Your task to perform on an android device: check data usage Image 0: 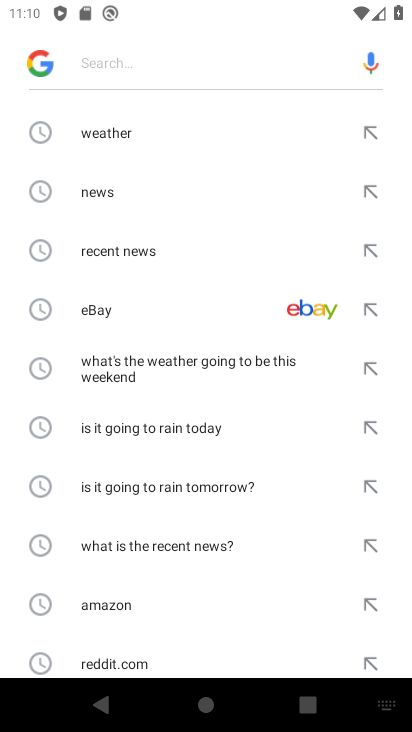
Step 0: press home button
Your task to perform on an android device: check data usage Image 1: 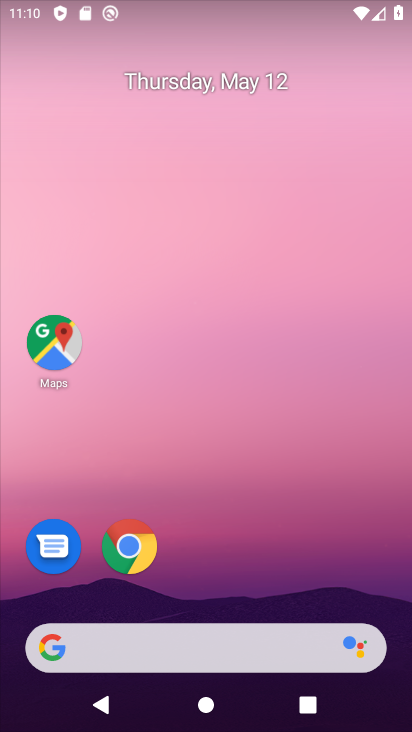
Step 1: drag from (222, 727) to (236, 241)
Your task to perform on an android device: check data usage Image 2: 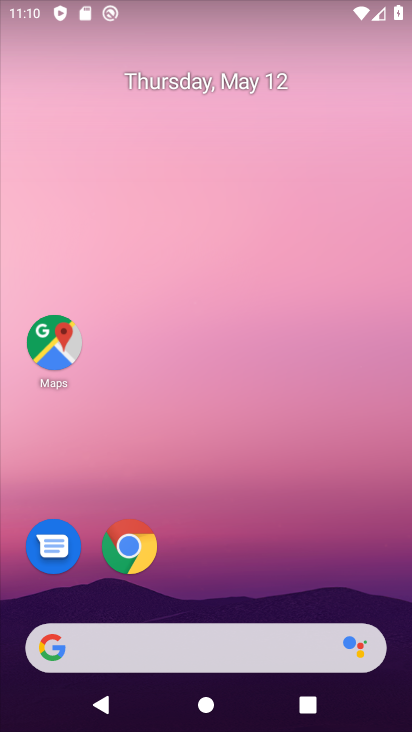
Step 2: drag from (221, 725) to (228, 110)
Your task to perform on an android device: check data usage Image 3: 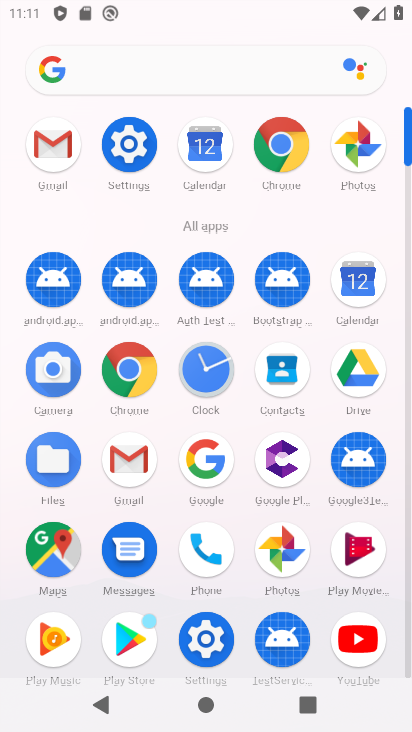
Step 3: click (131, 147)
Your task to perform on an android device: check data usage Image 4: 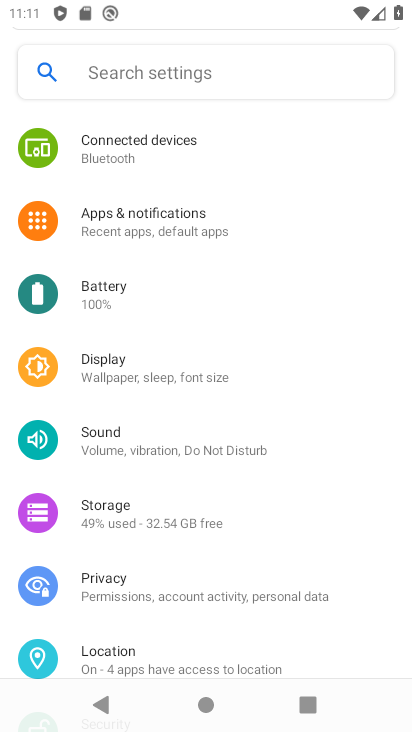
Step 4: drag from (186, 151) to (180, 494)
Your task to perform on an android device: check data usage Image 5: 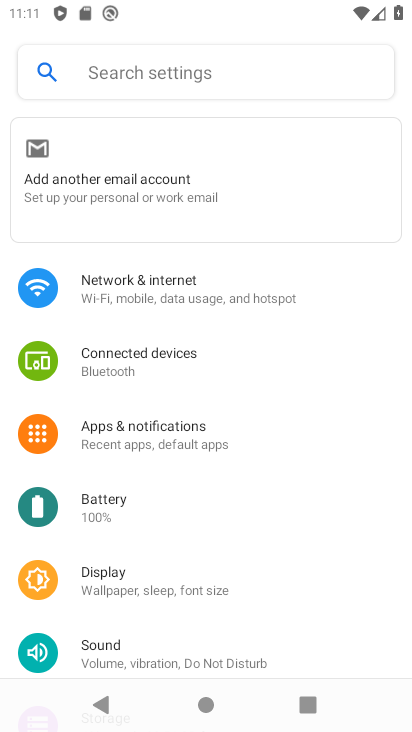
Step 5: click (137, 295)
Your task to perform on an android device: check data usage Image 6: 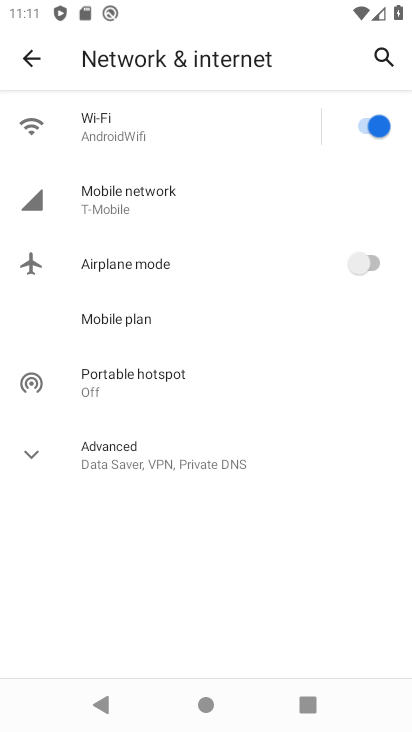
Step 6: click (116, 203)
Your task to perform on an android device: check data usage Image 7: 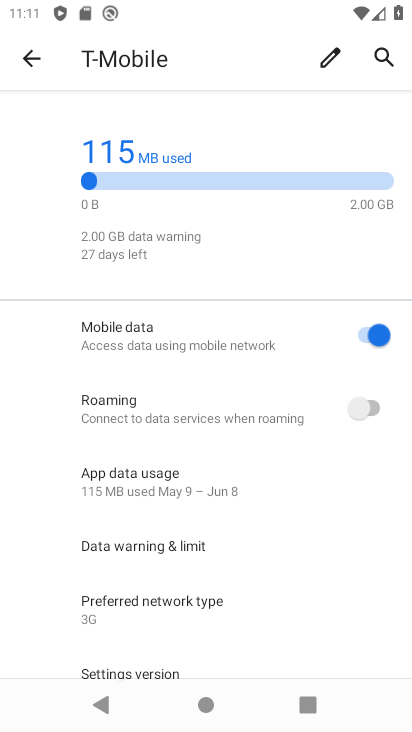
Step 7: click (126, 489)
Your task to perform on an android device: check data usage Image 8: 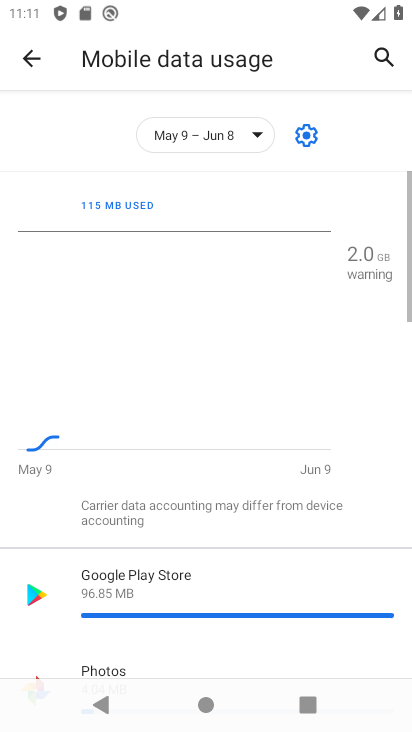
Step 8: task complete